Your task to perform on an android device: all mails in gmail Image 0: 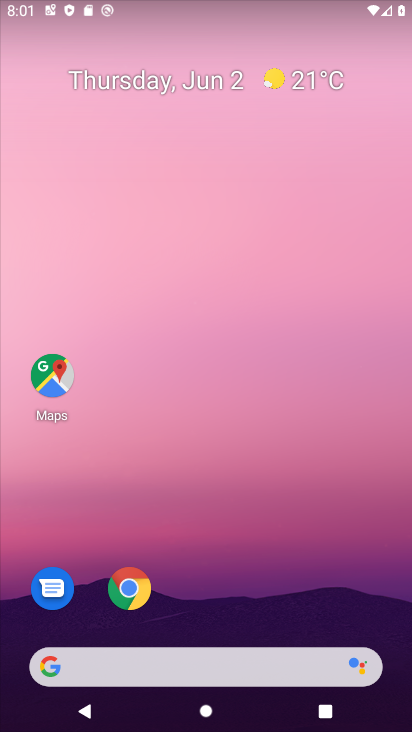
Step 0: drag from (211, 643) to (226, 81)
Your task to perform on an android device: all mails in gmail Image 1: 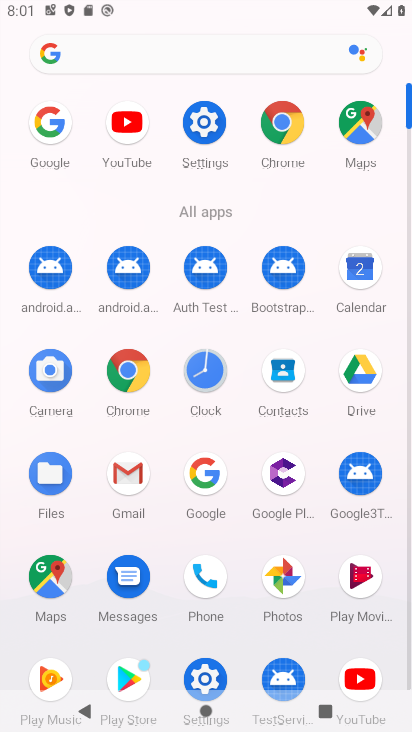
Step 1: click (130, 487)
Your task to perform on an android device: all mails in gmail Image 2: 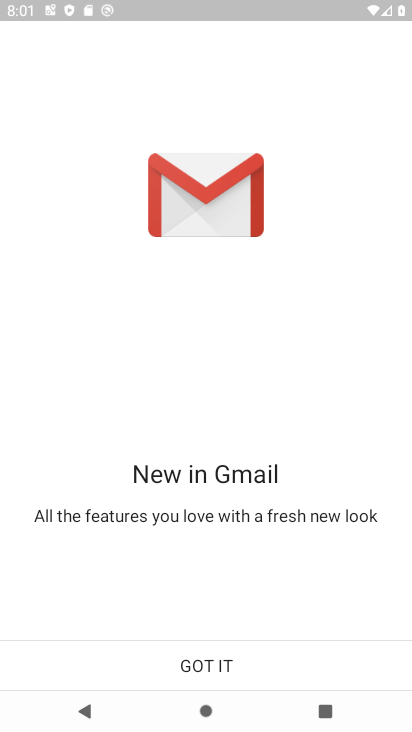
Step 2: click (218, 662)
Your task to perform on an android device: all mails in gmail Image 3: 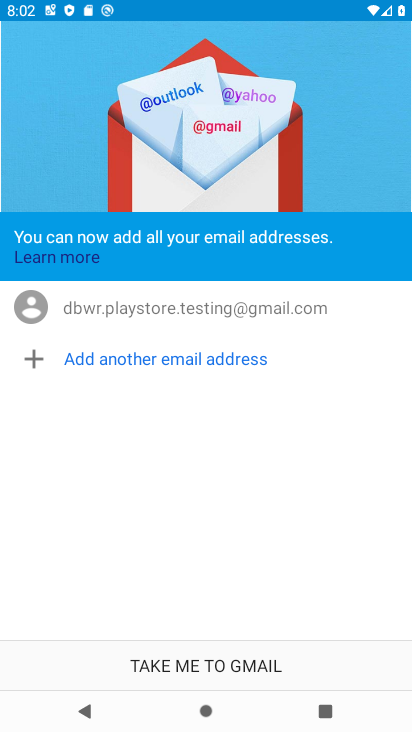
Step 3: click (218, 662)
Your task to perform on an android device: all mails in gmail Image 4: 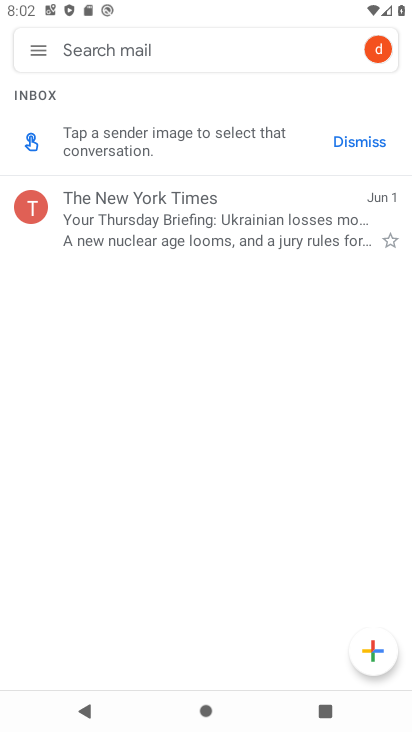
Step 4: click (37, 53)
Your task to perform on an android device: all mails in gmail Image 5: 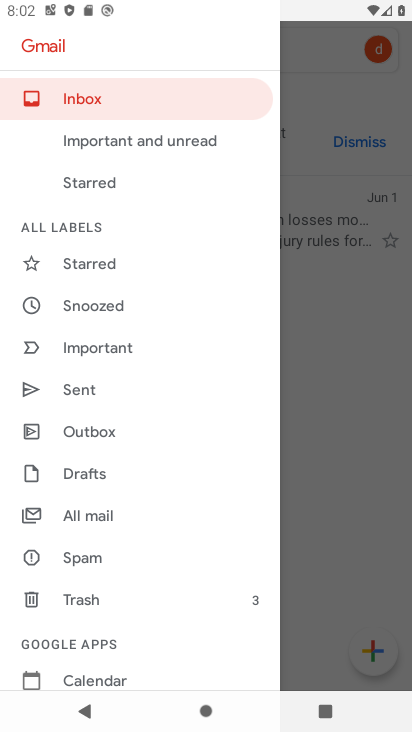
Step 5: click (131, 503)
Your task to perform on an android device: all mails in gmail Image 6: 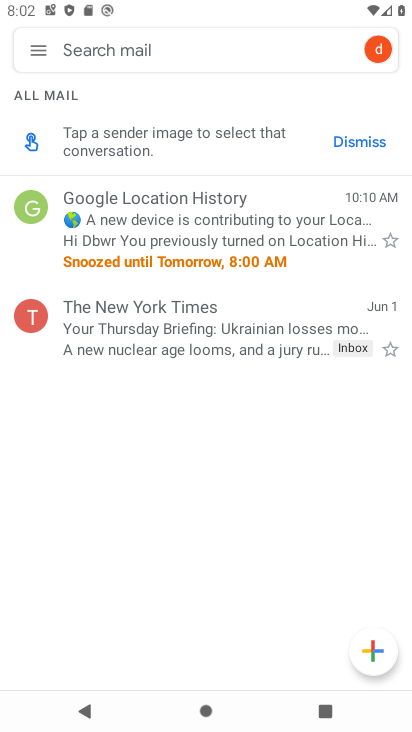
Step 6: task complete